Your task to perform on an android device: toggle priority inbox in the gmail app Image 0: 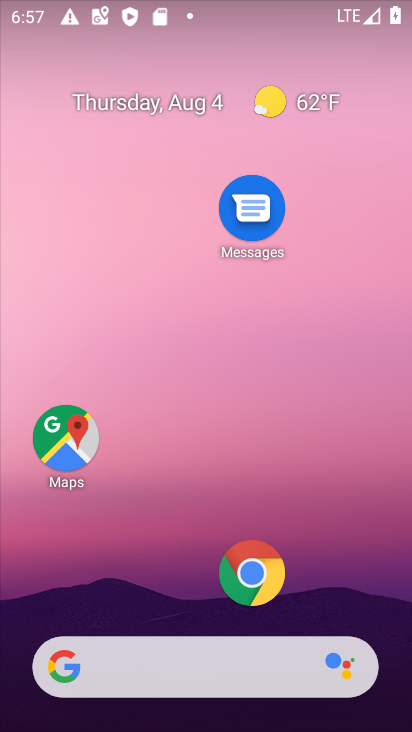
Step 0: press home button
Your task to perform on an android device: toggle priority inbox in the gmail app Image 1: 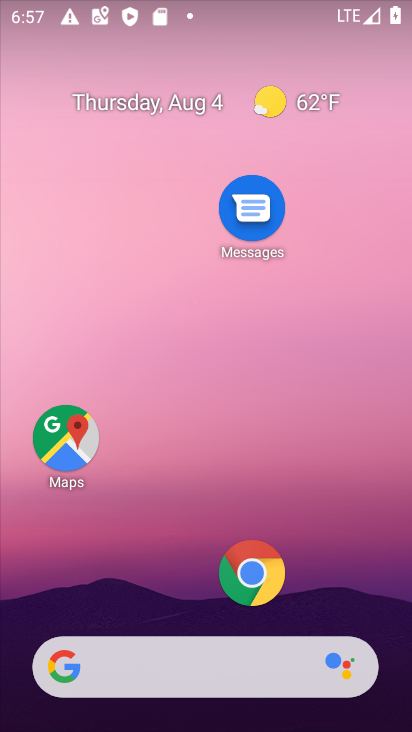
Step 1: drag from (169, 571) to (231, 94)
Your task to perform on an android device: toggle priority inbox in the gmail app Image 2: 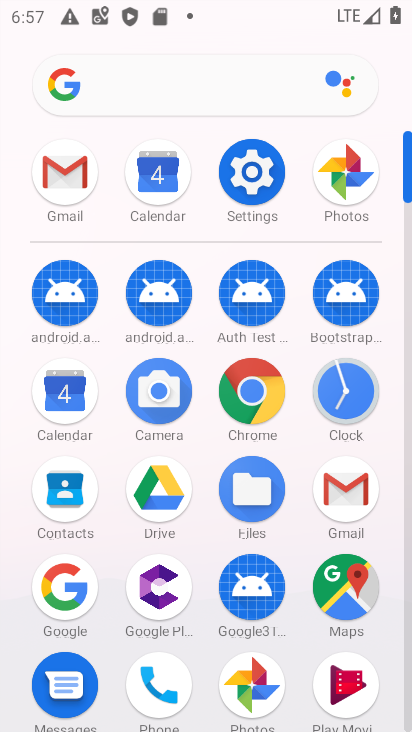
Step 2: click (57, 178)
Your task to perform on an android device: toggle priority inbox in the gmail app Image 3: 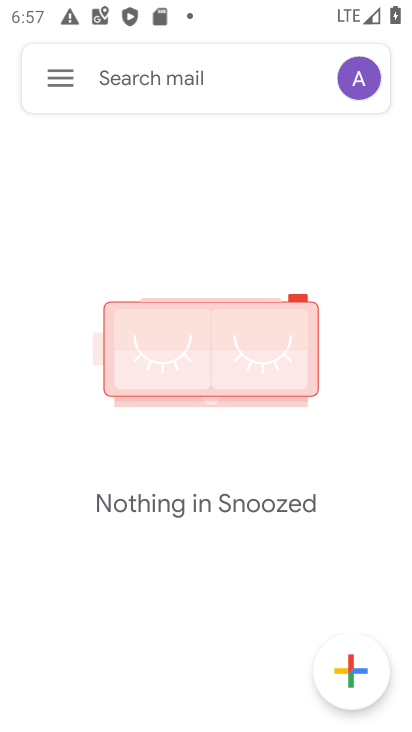
Step 3: click (65, 88)
Your task to perform on an android device: toggle priority inbox in the gmail app Image 4: 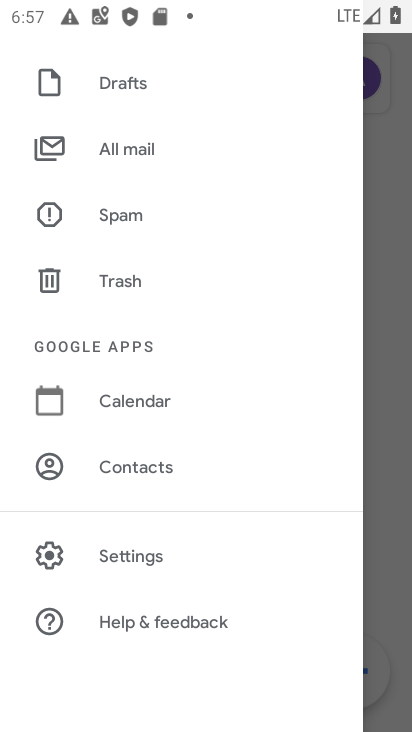
Step 4: click (89, 551)
Your task to perform on an android device: toggle priority inbox in the gmail app Image 5: 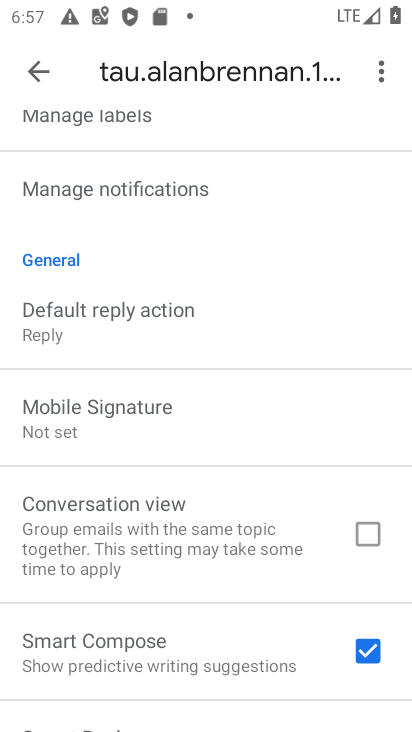
Step 5: drag from (228, 621) to (113, 710)
Your task to perform on an android device: toggle priority inbox in the gmail app Image 6: 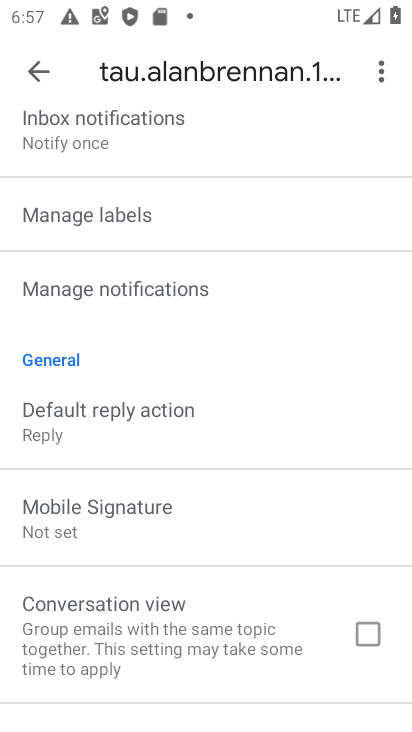
Step 6: drag from (330, 138) to (308, 487)
Your task to perform on an android device: toggle priority inbox in the gmail app Image 7: 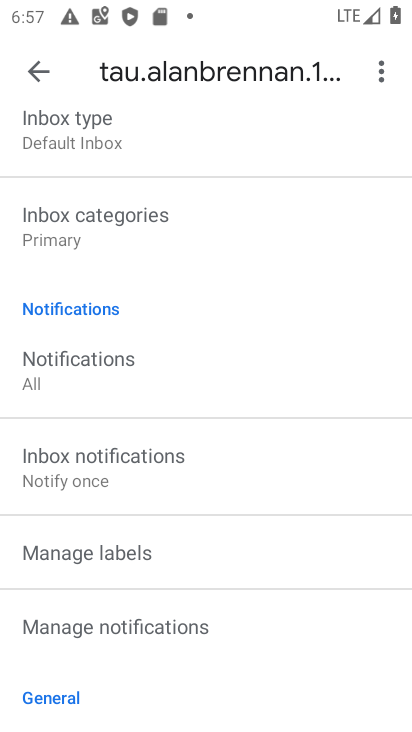
Step 7: click (86, 222)
Your task to perform on an android device: toggle priority inbox in the gmail app Image 8: 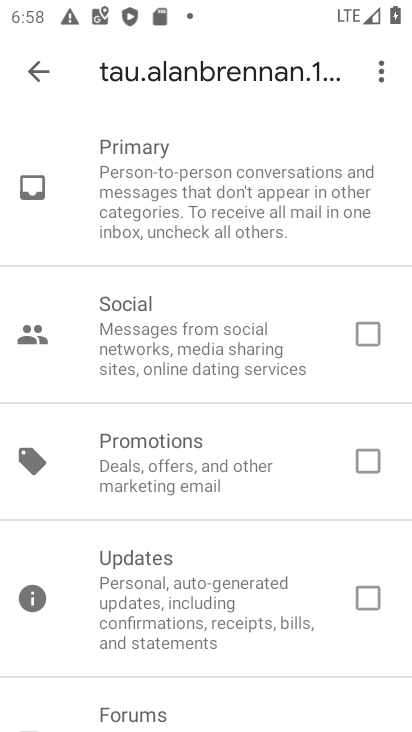
Step 8: click (33, 71)
Your task to perform on an android device: toggle priority inbox in the gmail app Image 9: 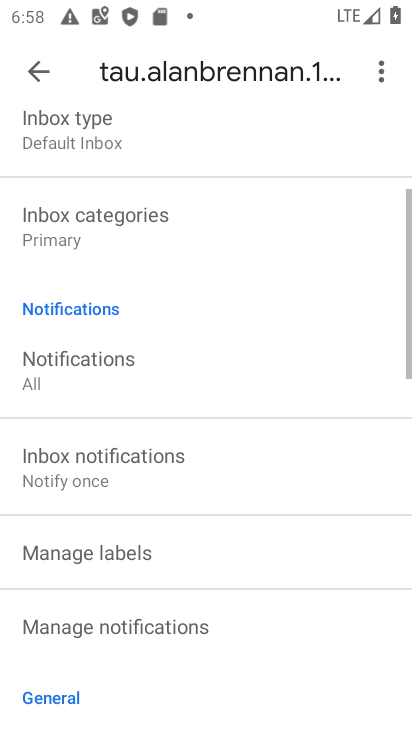
Step 9: drag from (234, 233) to (225, 526)
Your task to perform on an android device: toggle priority inbox in the gmail app Image 10: 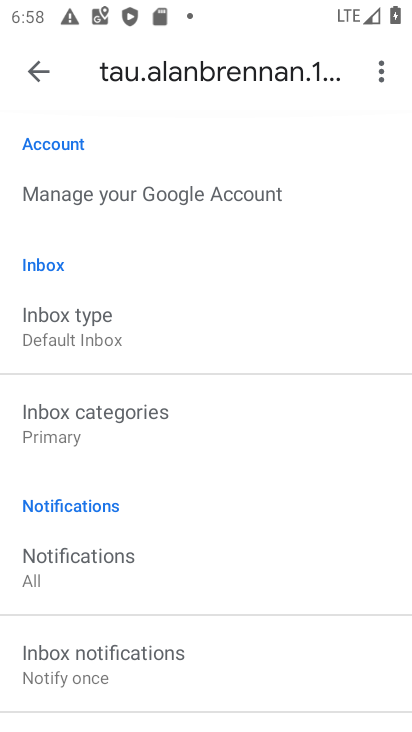
Step 10: click (38, 335)
Your task to perform on an android device: toggle priority inbox in the gmail app Image 11: 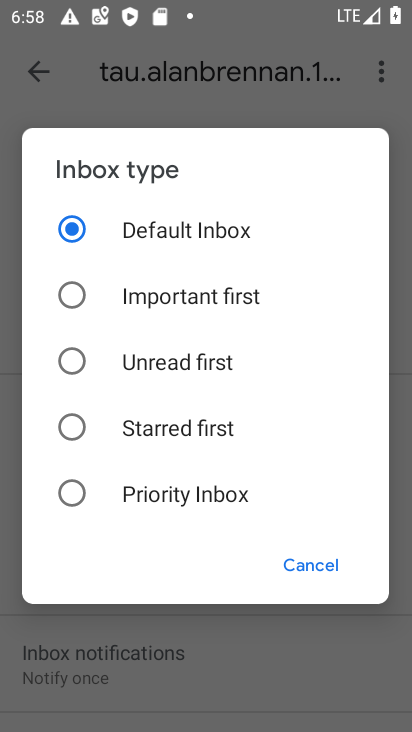
Step 11: click (71, 496)
Your task to perform on an android device: toggle priority inbox in the gmail app Image 12: 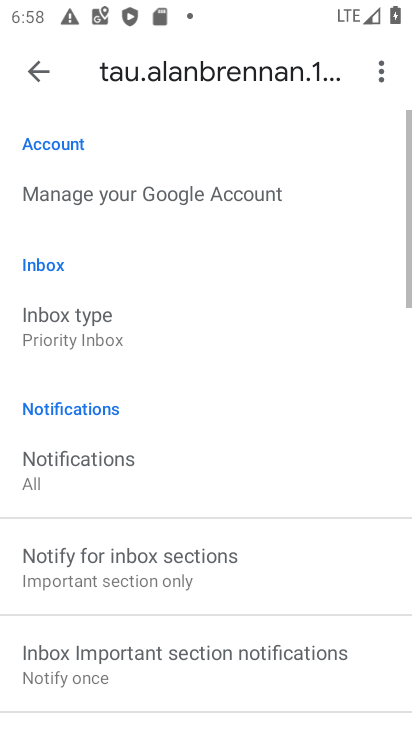
Step 12: task complete